Your task to perform on an android device: change text size in settings app Image 0: 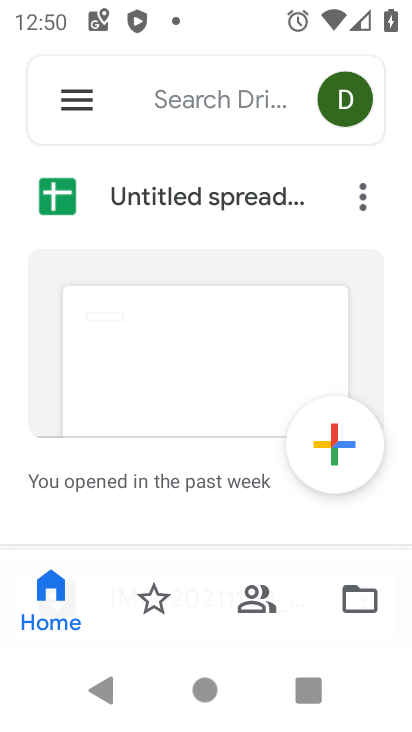
Step 0: press home button
Your task to perform on an android device: change text size in settings app Image 1: 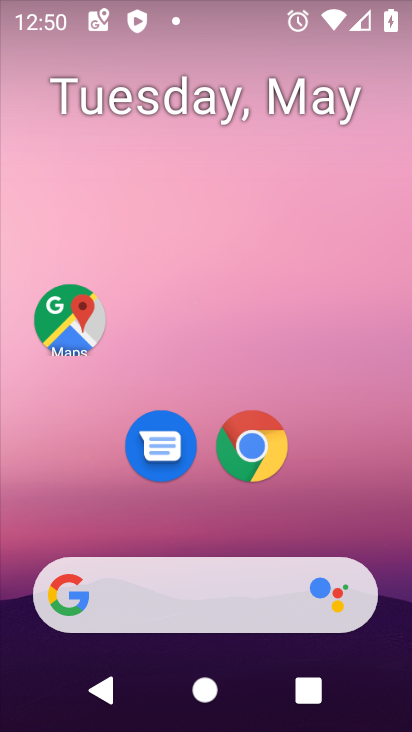
Step 1: drag from (319, 353) to (331, 170)
Your task to perform on an android device: change text size in settings app Image 2: 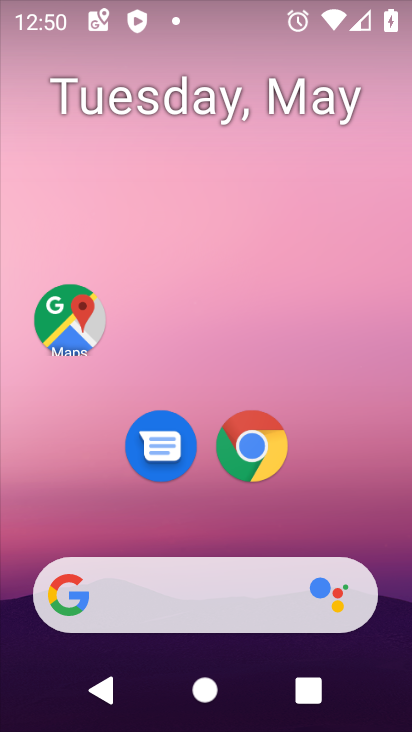
Step 2: drag from (309, 501) to (323, 133)
Your task to perform on an android device: change text size in settings app Image 3: 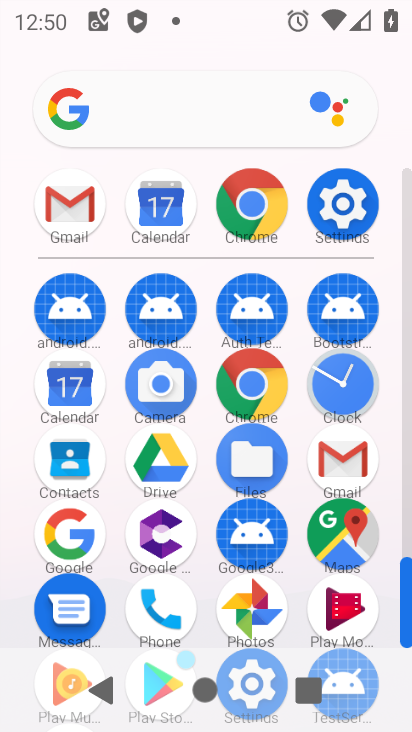
Step 3: drag from (211, 578) to (238, 299)
Your task to perform on an android device: change text size in settings app Image 4: 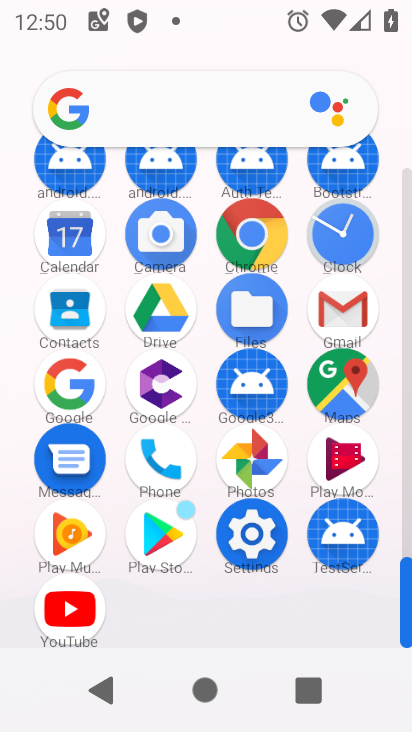
Step 4: click (243, 526)
Your task to perform on an android device: change text size in settings app Image 5: 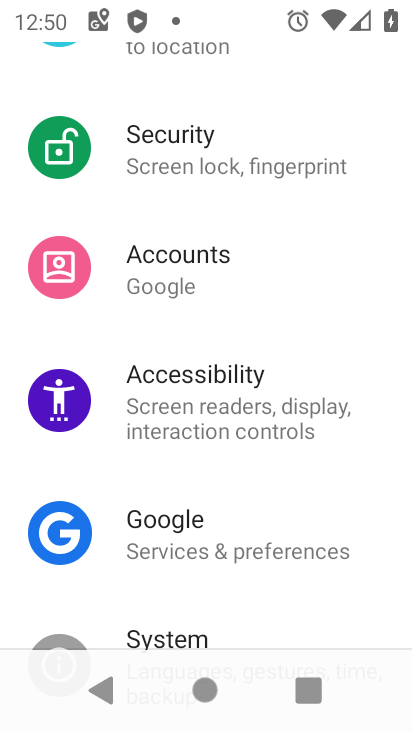
Step 5: drag from (236, 570) to (278, 285)
Your task to perform on an android device: change text size in settings app Image 6: 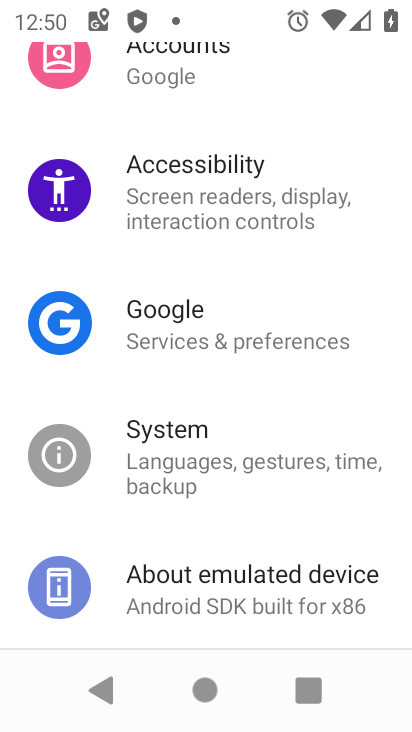
Step 6: click (220, 462)
Your task to perform on an android device: change text size in settings app Image 7: 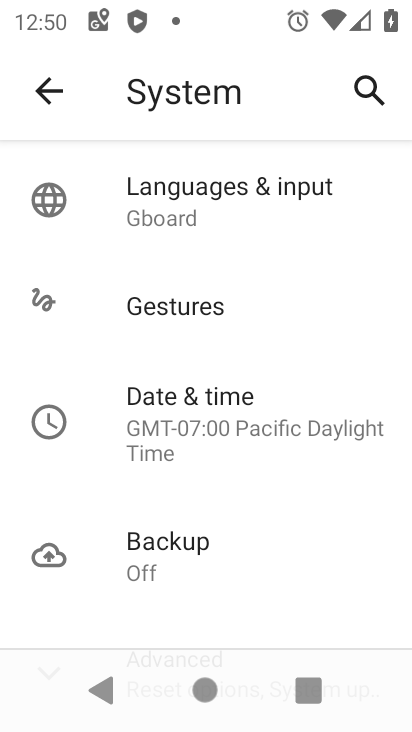
Step 7: click (31, 97)
Your task to perform on an android device: change text size in settings app Image 8: 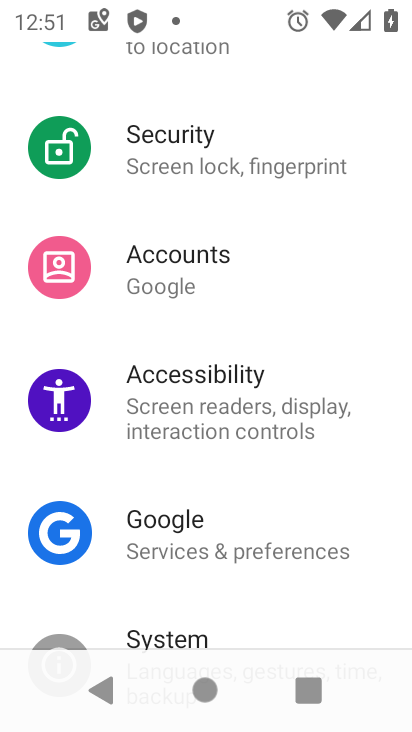
Step 8: click (205, 429)
Your task to perform on an android device: change text size in settings app Image 9: 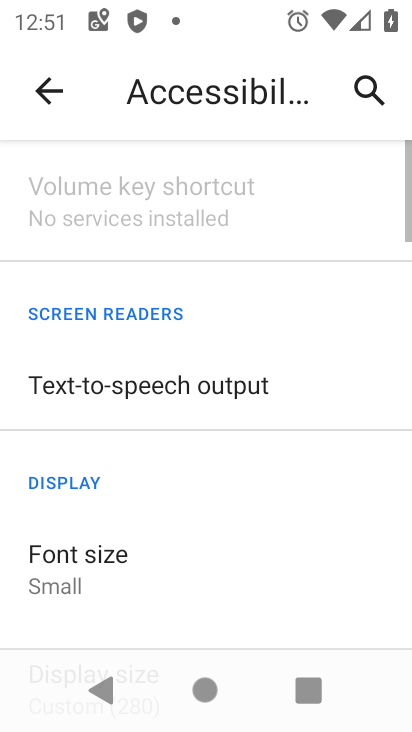
Step 9: click (117, 551)
Your task to perform on an android device: change text size in settings app Image 10: 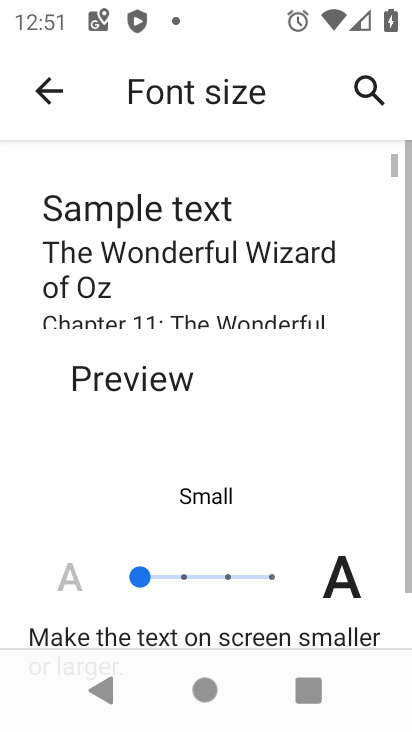
Step 10: click (219, 574)
Your task to perform on an android device: change text size in settings app Image 11: 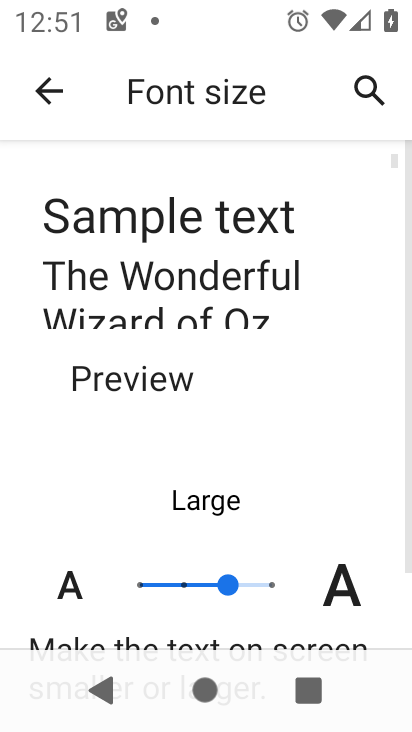
Step 11: task complete